Your task to perform on an android device: Open calendar and show me the third week of next month Image 0: 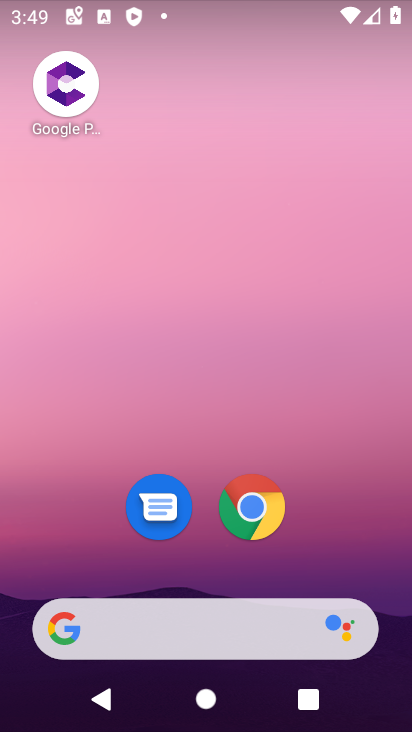
Step 0: drag from (378, 454) to (411, 48)
Your task to perform on an android device: Open calendar and show me the third week of next month Image 1: 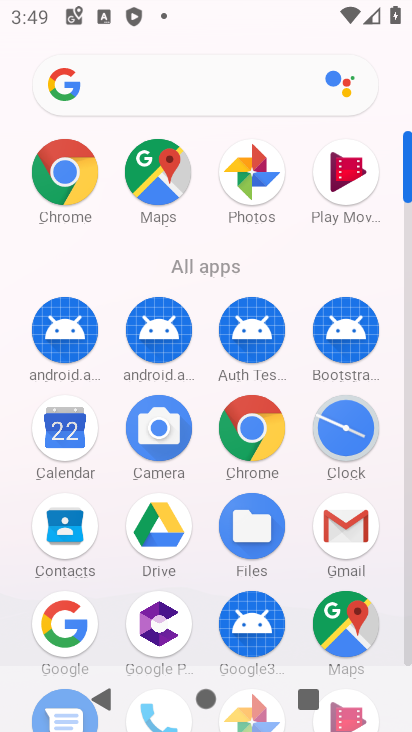
Step 1: click (64, 418)
Your task to perform on an android device: Open calendar and show me the third week of next month Image 2: 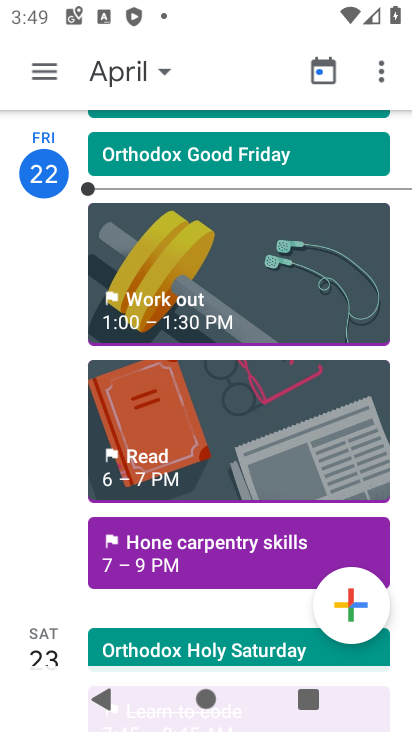
Step 2: click (126, 76)
Your task to perform on an android device: Open calendar and show me the third week of next month Image 3: 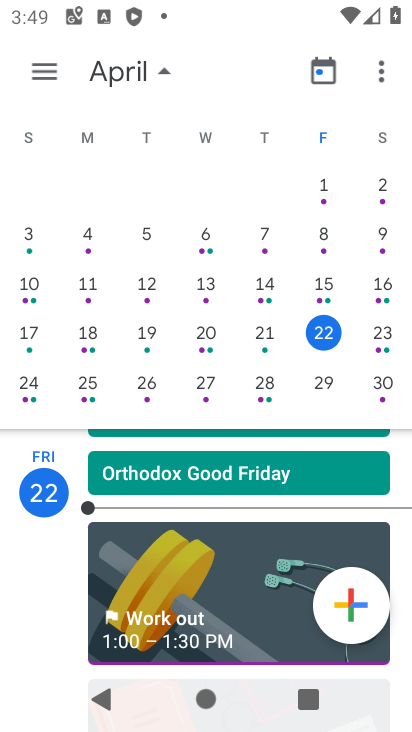
Step 3: drag from (371, 283) to (2, 311)
Your task to perform on an android device: Open calendar and show me the third week of next month Image 4: 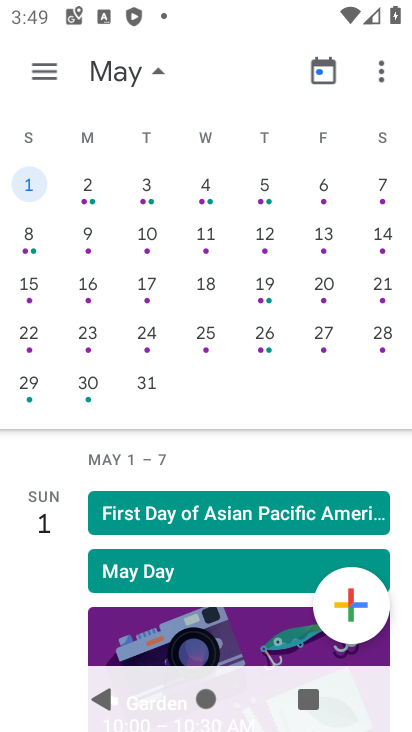
Step 4: click (383, 291)
Your task to perform on an android device: Open calendar and show me the third week of next month Image 5: 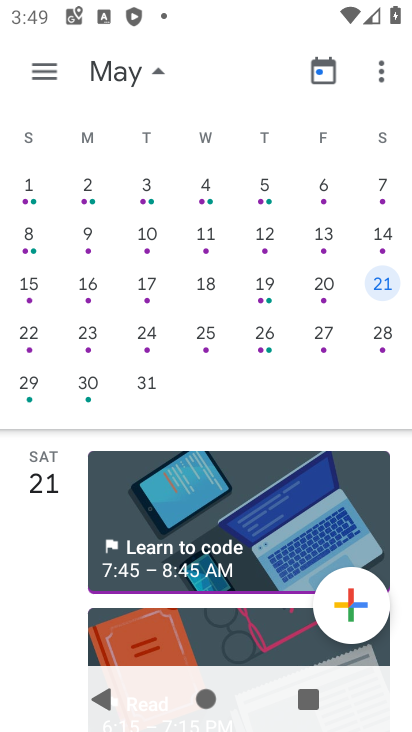
Step 5: task complete